Your task to perform on an android device: Open Maps and search for coffee Image 0: 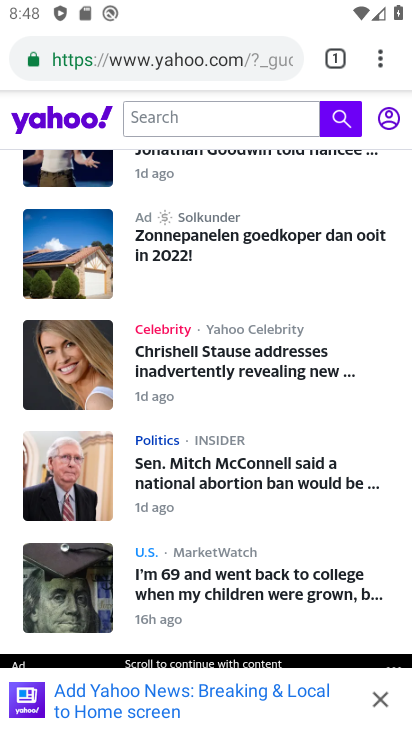
Step 0: press home button
Your task to perform on an android device: Open Maps and search for coffee Image 1: 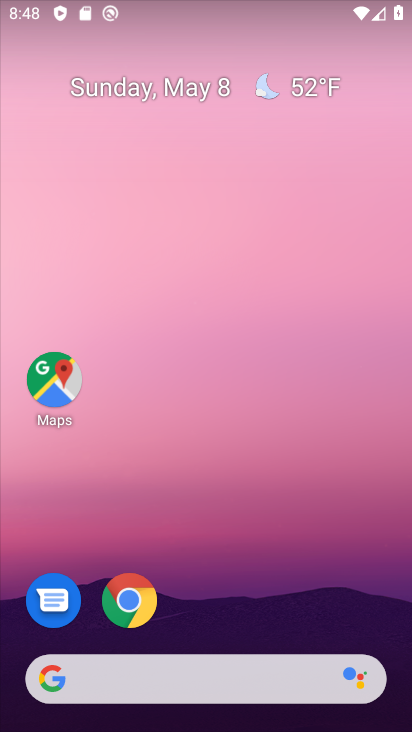
Step 1: click (66, 397)
Your task to perform on an android device: Open Maps and search for coffee Image 2: 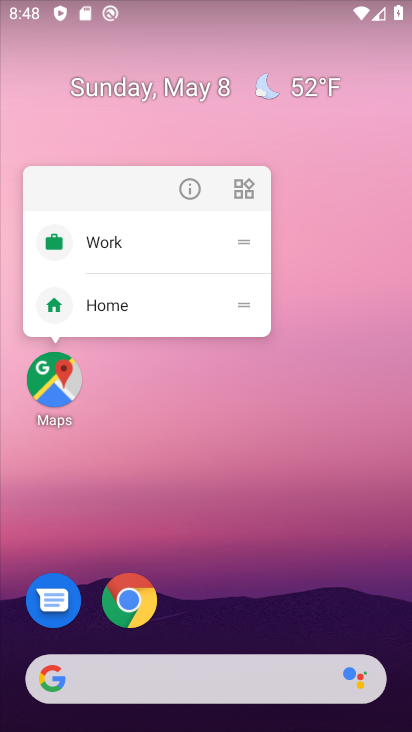
Step 2: click (62, 394)
Your task to perform on an android device: Open Maps and search for coffee Image 3: 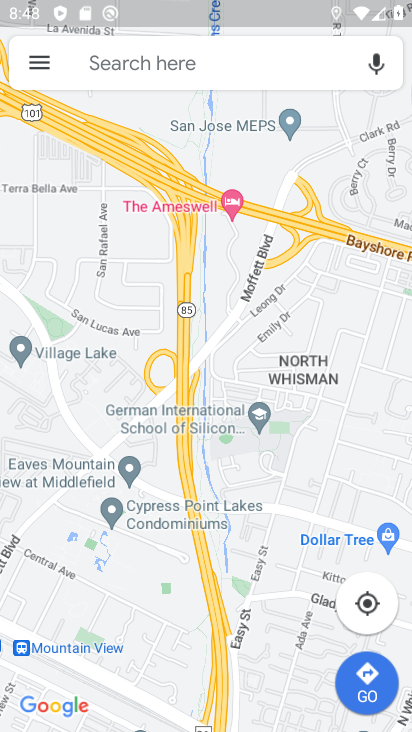
Step 3: click (160, 67)
Your task to perform on an android device: Open Maps and search for coffee Image 4: 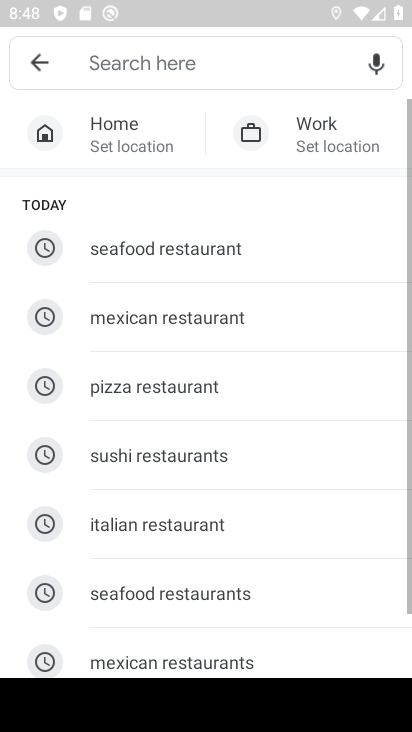
Step 4: drag from (172, 509) to (125, 120)
Your task to perform on an android device: Open Maps and search for coffee Image 5: 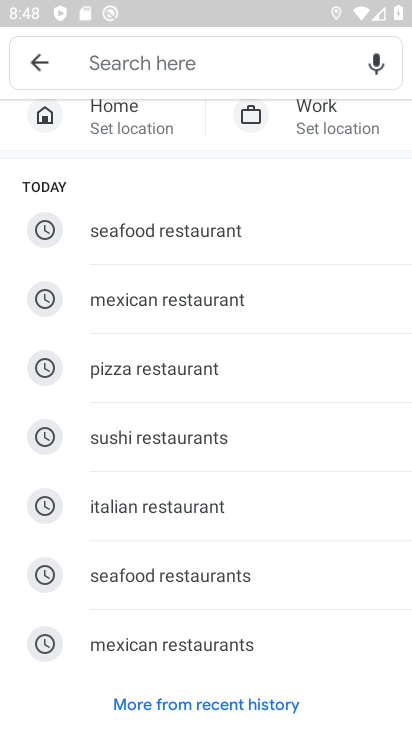
Step 5: click (149, 704)
Your task to perform on an android device: Open Maps and search for coffee Image 6: 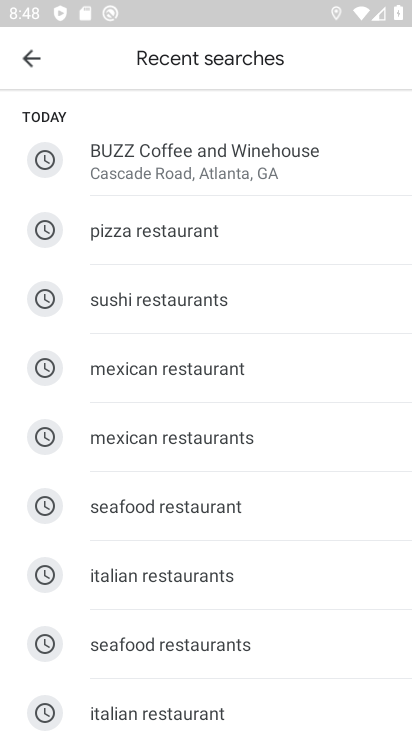
Step 6: drag from (155, 696) to (124, 95)
Your task to perform on an android device: Open Maps and search for coffee Image 7: 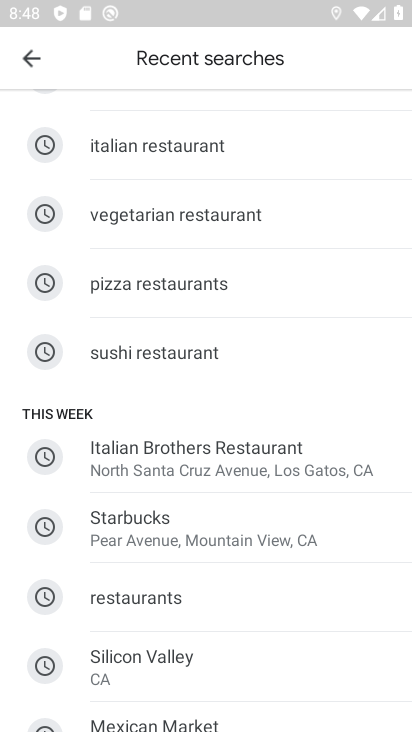
Step 7: drag from (183, 586) to (161, 102)
Your task to perform on an android device: Open Maps and search for coffee Image 8: 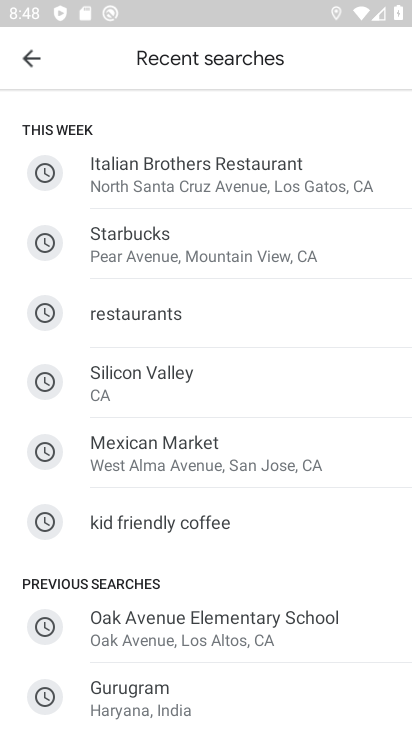
Step 8: drag from (233, 684) to (189, 145)
Your task to perform on an android device: Open Maps and search for coffee Image 9: 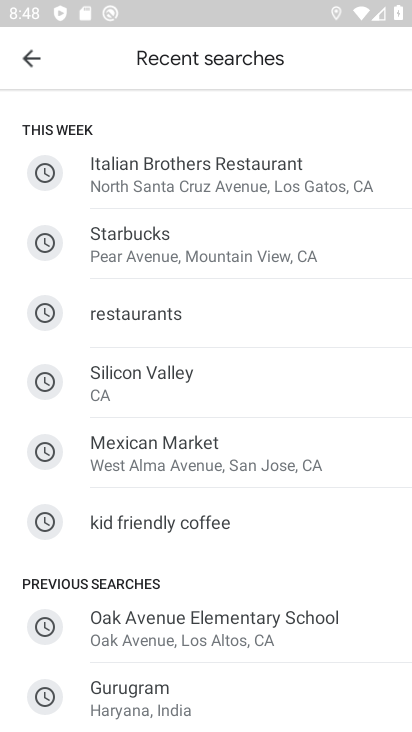
Step 9: type "coffee"
Your task to perform on an android device: Open Maps and search for coffee Image 10: 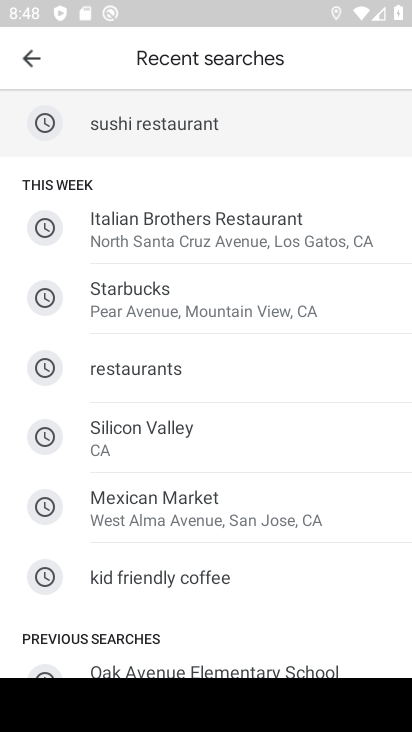
Step 10: click (36, 54)
Your task to perform on an android device: Open Maps and search for coffee Image 11: 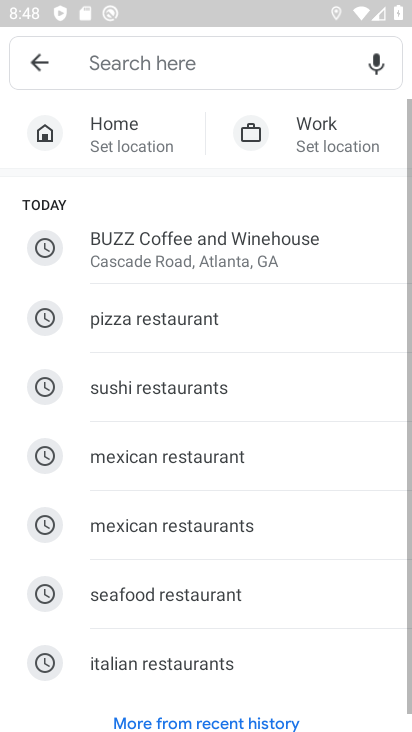
Step 11: click (124, 59)
Your task to perform on an android device: Open Maps and search for coffee Image 12: 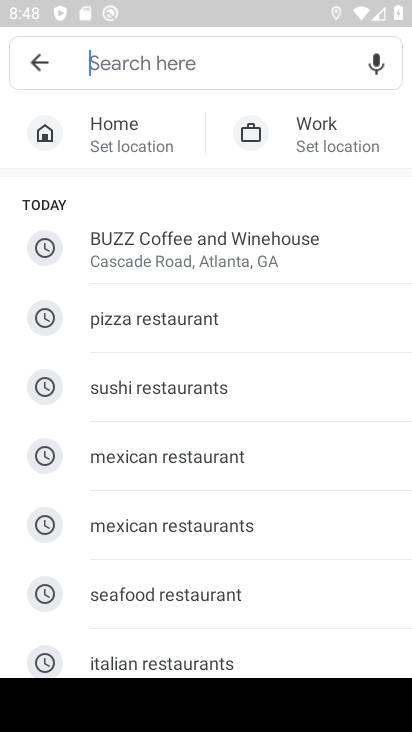
Step 12: type "coffee"
Your task to perform on an android device: Open Maps and search for coffee Image 13: 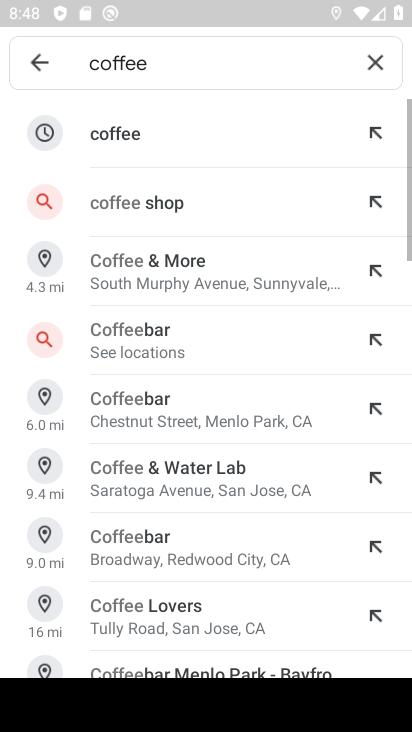
Step 13: click (111, 136)
Your task to perform on an android device: Open Maps and search for coffee Image 14: 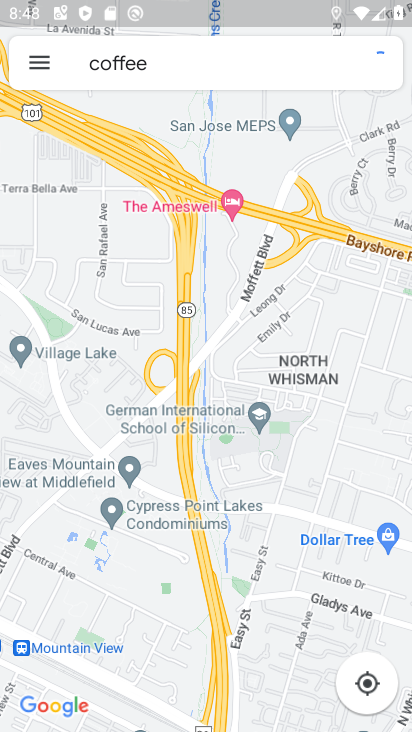
Step 14: task complete